Your task to perform on an android device: Open Wikipedia Image 0: 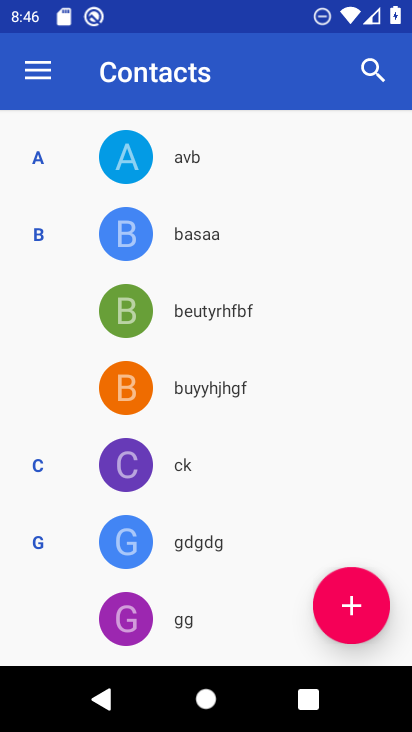
Step 0: press home button
Your task to perform on an android device: Open Wikipedia Image 1: 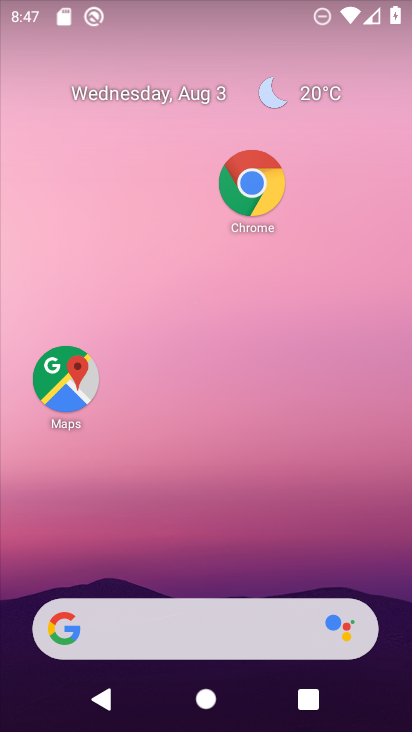
Step 1: click (245, 192)
Your task to perform on an android device: Open Wikipedia Image 2: 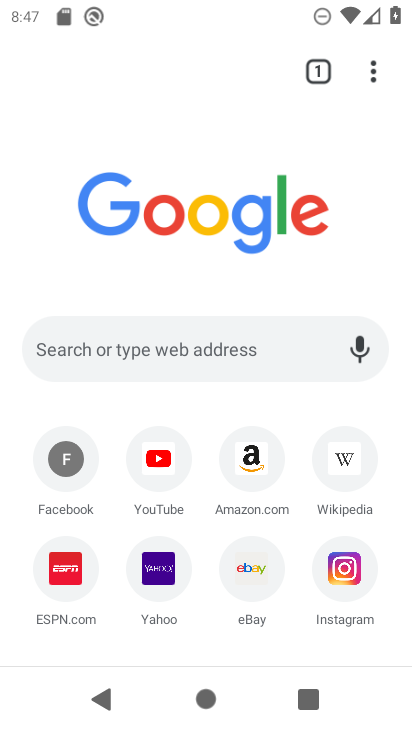
Step 2: click (343, 457)
Your task to perform on an android device: Open Wikipedia Image 3: 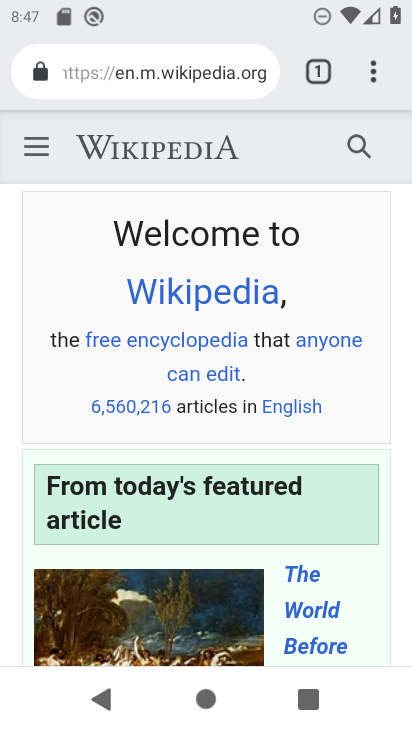
Step 3: task complete